Your task to perform on an android device: see tabs open on other devices in the chrome app Image 0: 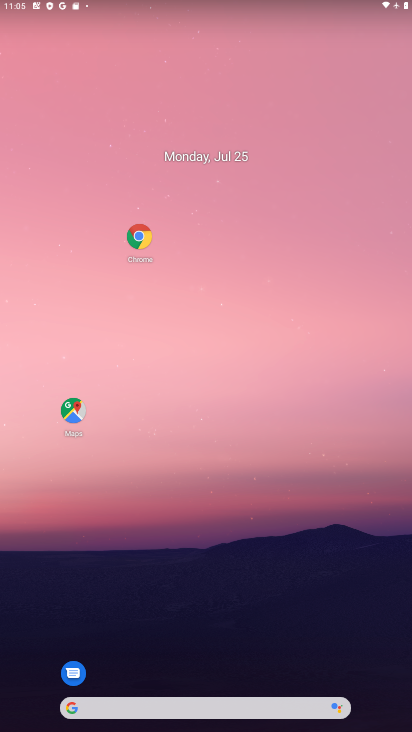
Step 0: click (143, 247)
Your task to perform on an android device: see tabs open on other devices in the chrome app Image 1: 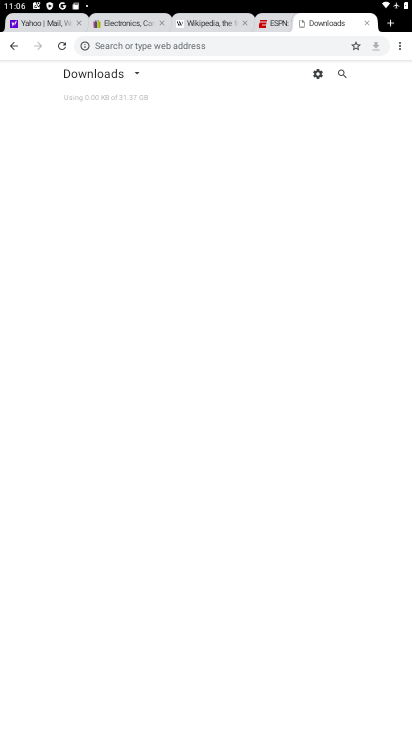
Step 1: click (401, 58)
Your task to perform on an android device: see tabs open on other devices in the chrome app Image 2: 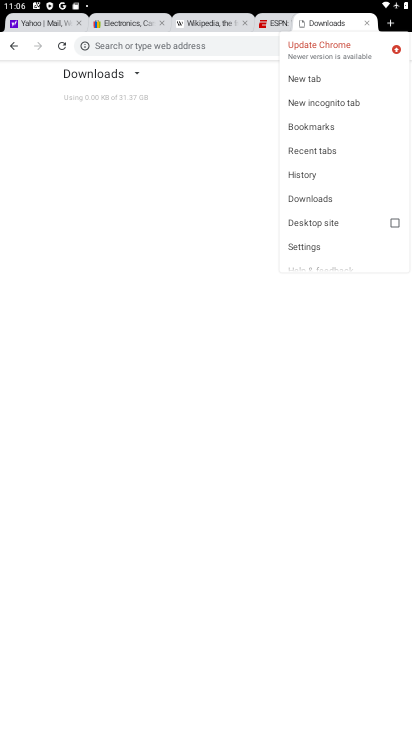
Step 2: click (330, 144)
Your task to perform on an android device: see tabs open on other devices in the chrome app Image 3: 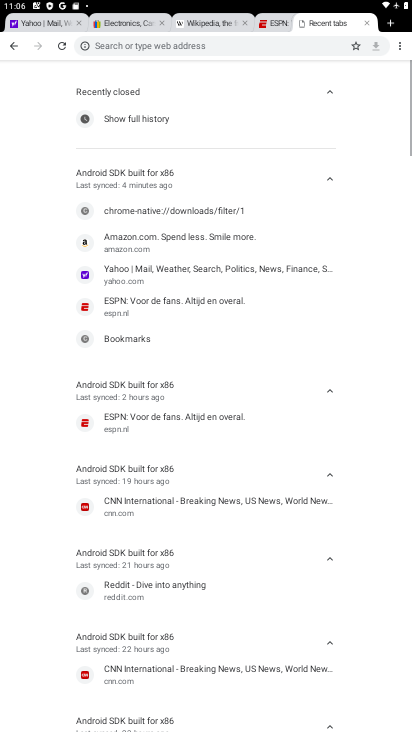
Step 3: task complete